Your task to perform on an android device: turn on translation in the chrome app Image 0: 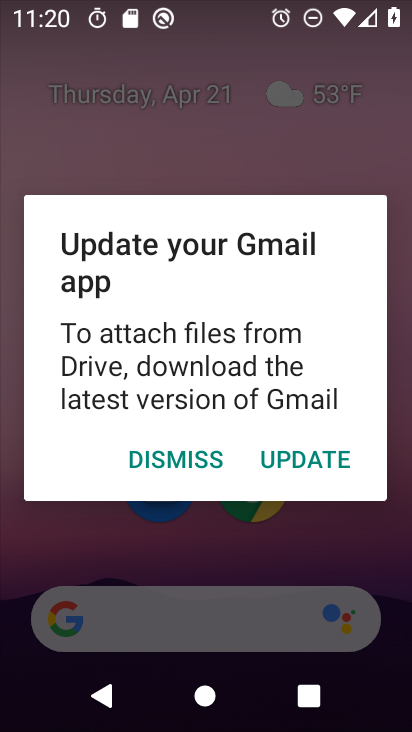
Step 0: press home button
Your task to perform on an android device: turn on translation in the chrome app Image 1: 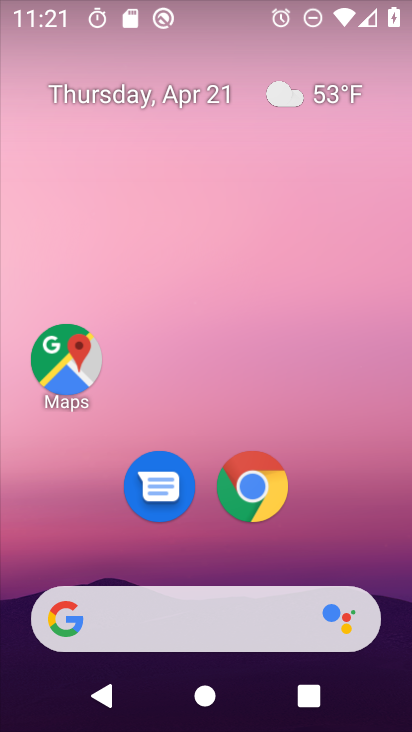
Step 1: click (249, 480)
Your task to perform on an android device: turn on translation in the chrome app Image 2: 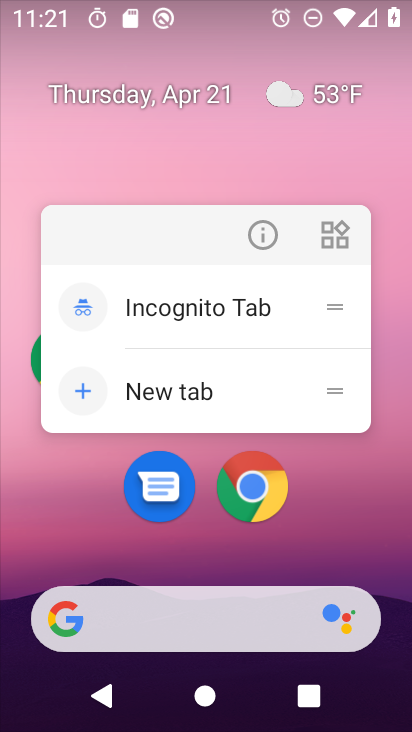
Step 2: click (249, 480)
Your task to perform on an android device: turn on translation in the chrome app Image 3: 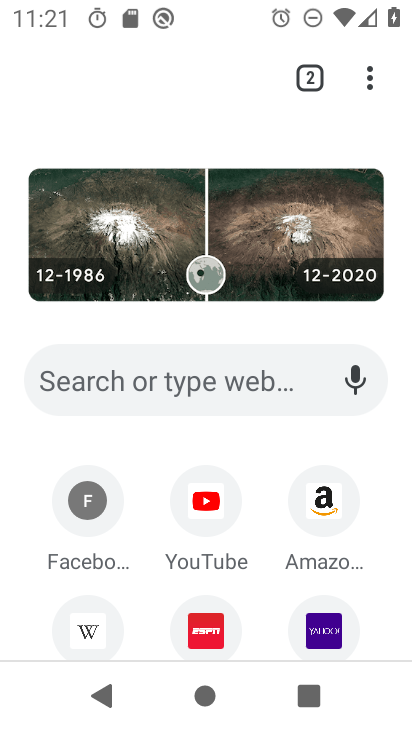
Step 3: click (363, 76)
Your task to perform on an android device: turn on translation in the chrome app Image 4: 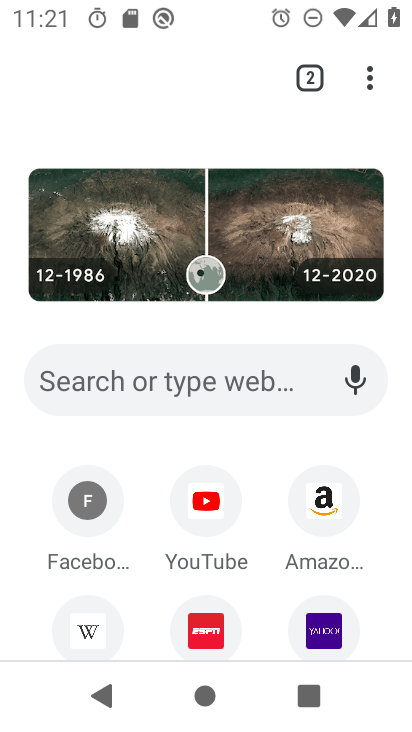
Step 4: click (363, 76)
Your task to perform on an android device: turn on translation in the chrome app Image 5: 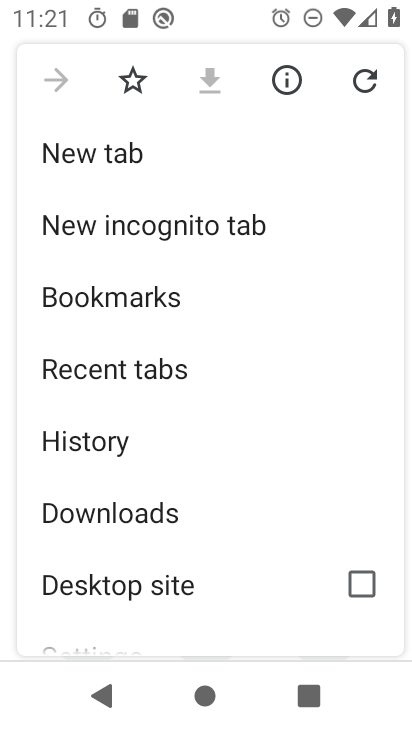
Step 5: drag from (247, 492) to (247, 273)
Your task to perform on an android device: turn on translation in the chrome app Image 6: 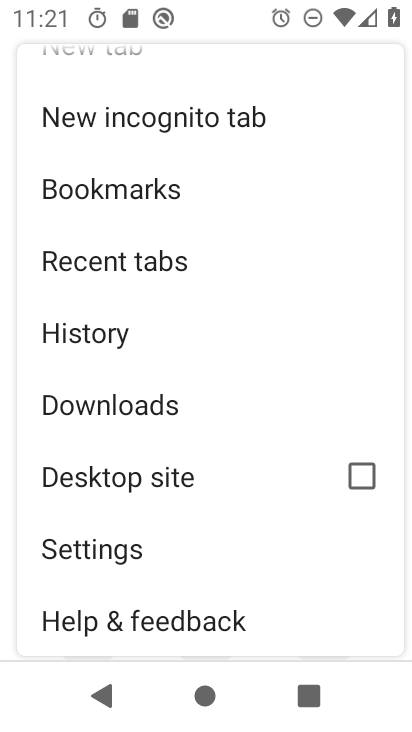
Step 6: drag from (288, 570) to (274, 274)
Your task to perform on an android device: turn on translation in the chrome app Image 7: 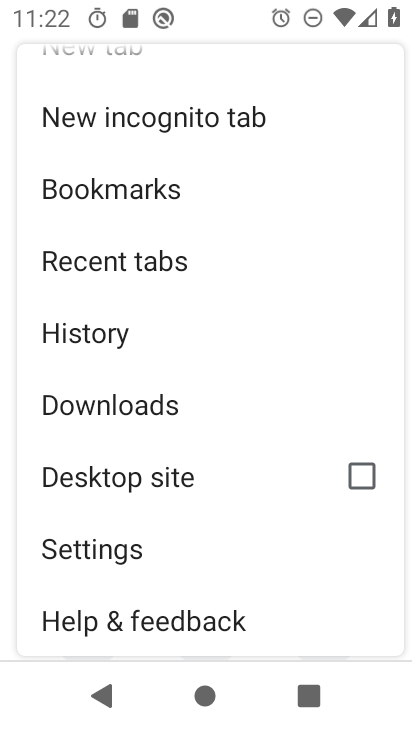
Step 7: click (93, 554)
Your task to perform on an android device: turn on translation in the chrome app Image 8: 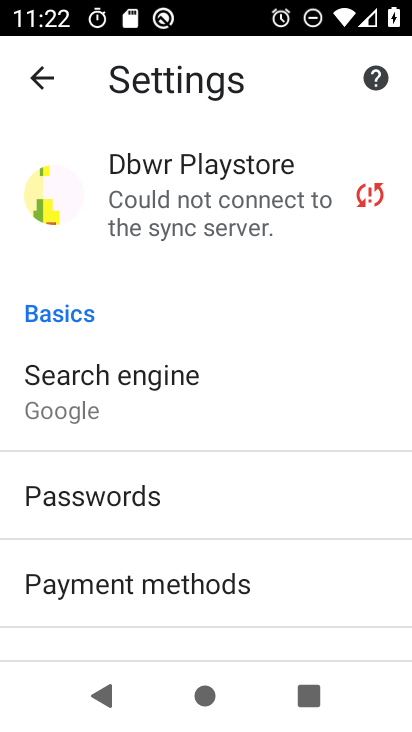
Step 8: drag from (316, 528) to (318, 355)
Your task to perform on an android device: turn on translation in the chrome app Image 9: 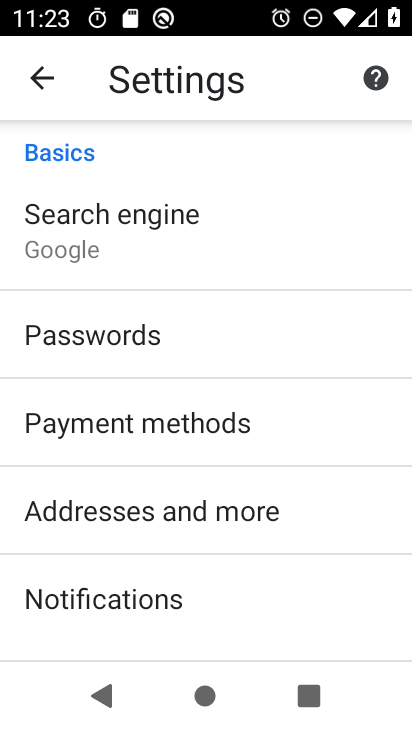
Step 9: drag from (314, 631) to (341, 289)
Your task to perform on an android device: turn on translation in the chrome app Image 10: 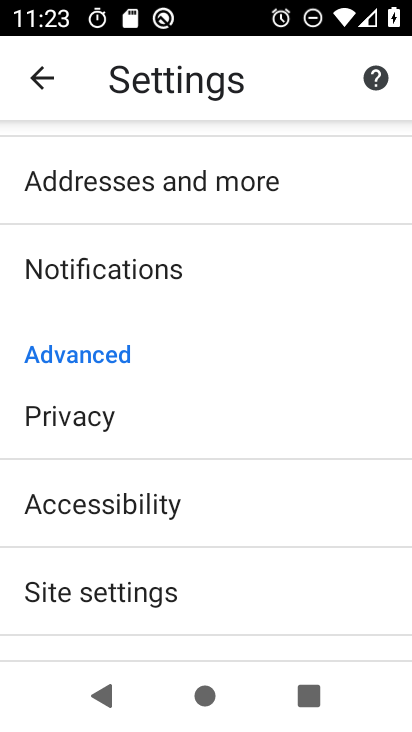
Step 10: drag from (303, 550) to (299, 298)
Your task to perform on an android device: turn on translation in the chrome app Image 11: 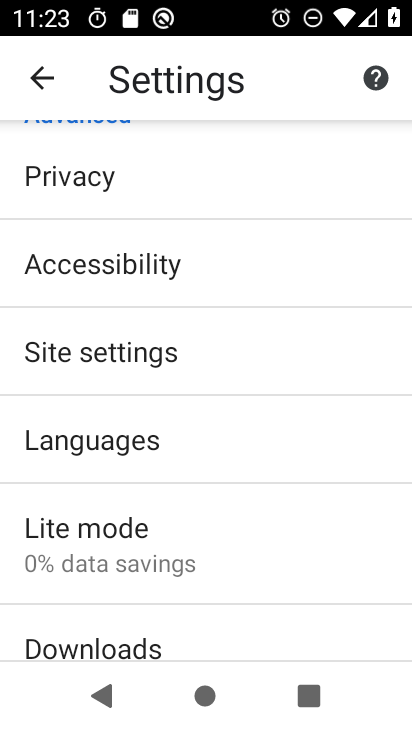
Step 11: click (96, 451)
Your task to perform on an android device: turn on translation in the chrome app Image 12: 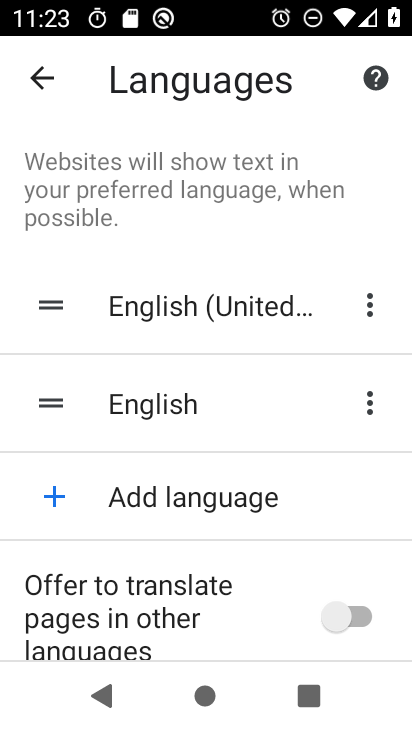
Step 12: click (357, 618)
Your task to perform on an android device: turn on translation in the chrome app Image 13: 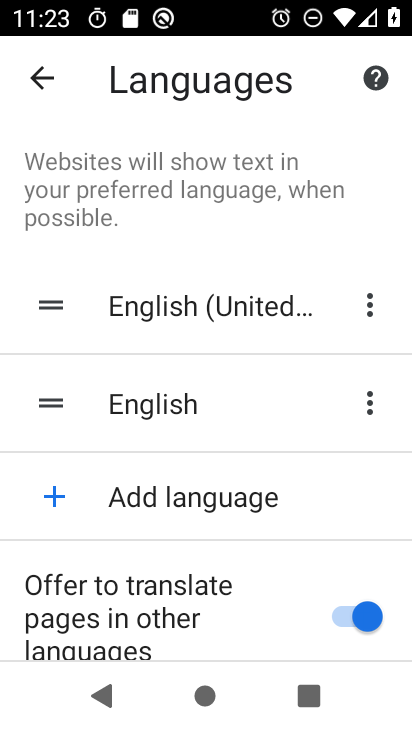
Step 13: task complete